Your task to perform on an android device: set default search engine in the chrome app Image 0: 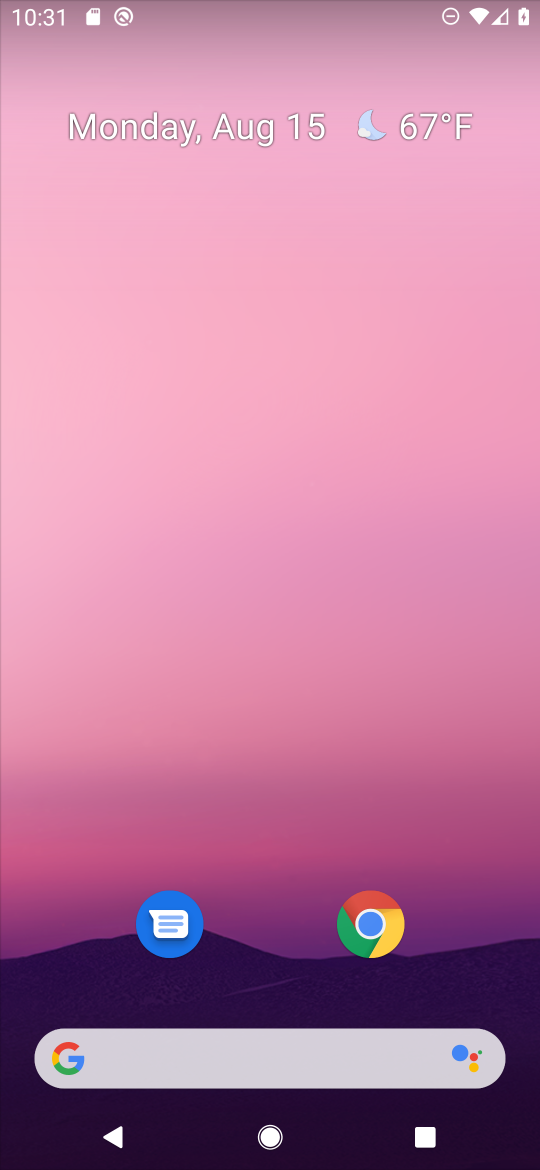
Step 0: click (377, 924)
Your task to perform on an android device: set default search engine in the chrome app Image 1: 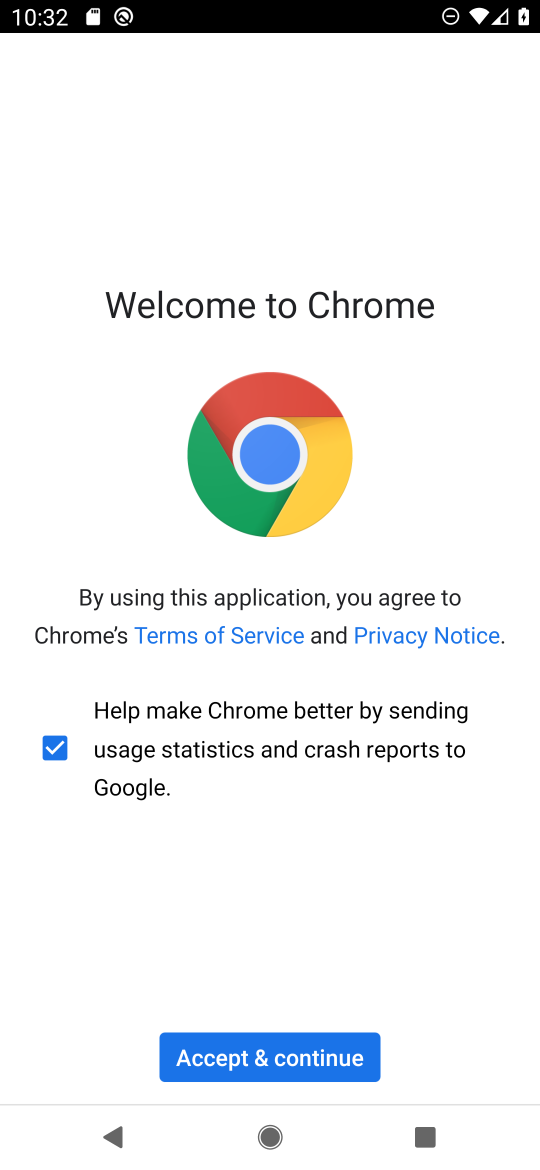
Step 1: click (271, 1048)
Your task to perform on an android device: set default search engine in the chrome app Image 2: 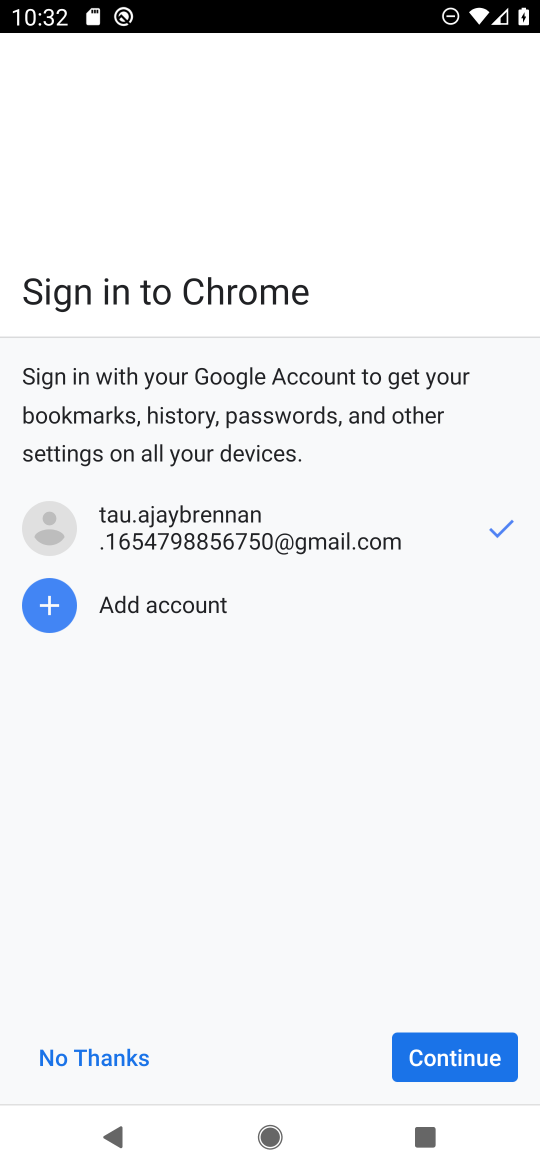
Step 2: click (464, 1049)
Your task to perform on an android device: set default search engine in the chrome app Image 3: 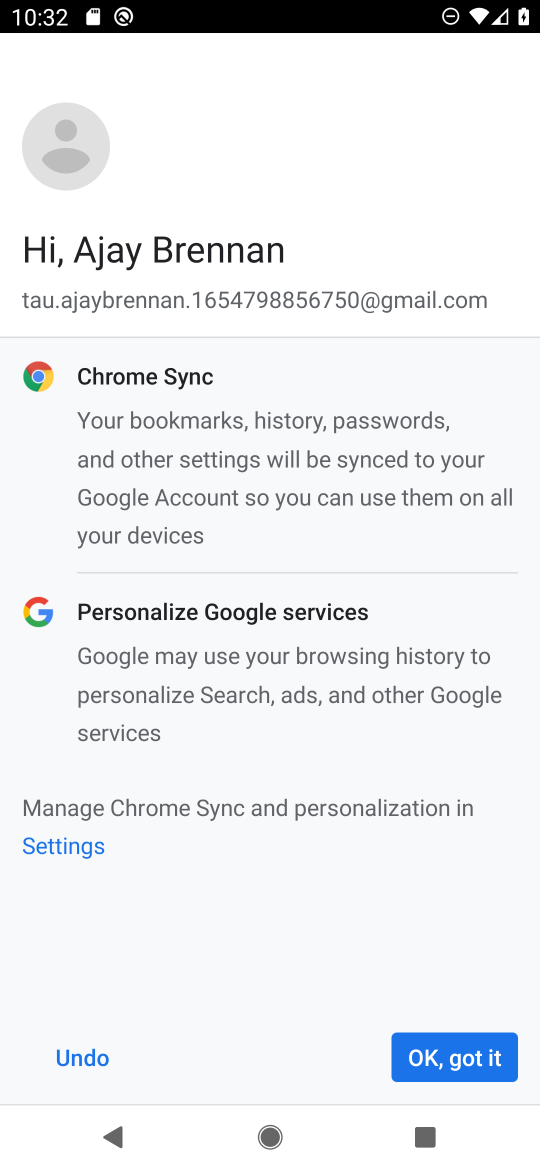
Step 3: click (464, 1049)
Your task to perform on an android device: set default search engine in the chrome app Image 4: 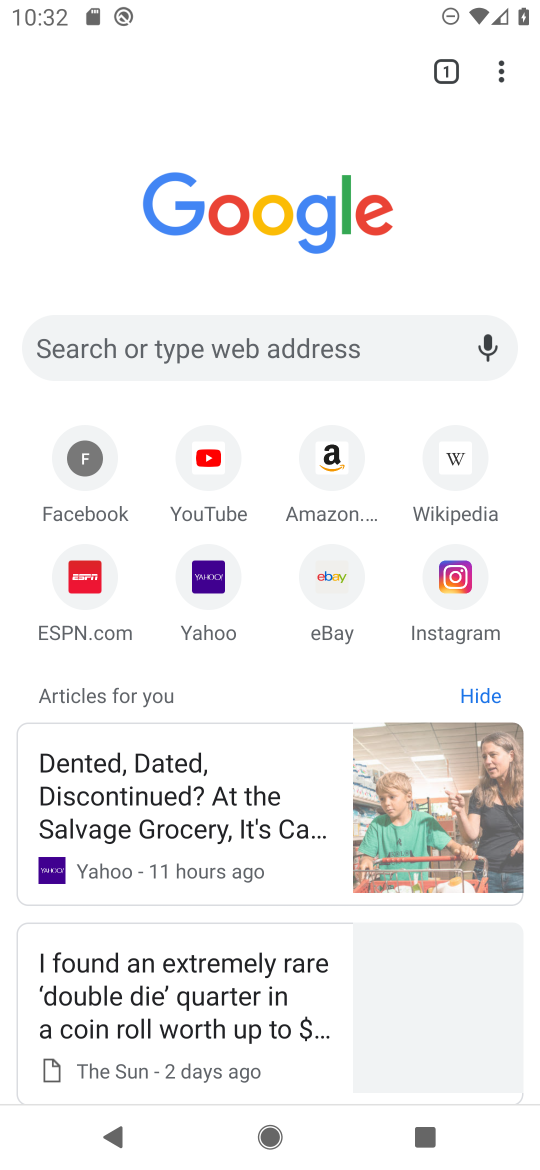
Step 4: click (493, 84)
Your task to perform on an android device: set default search engine in the chrome app Image 5: 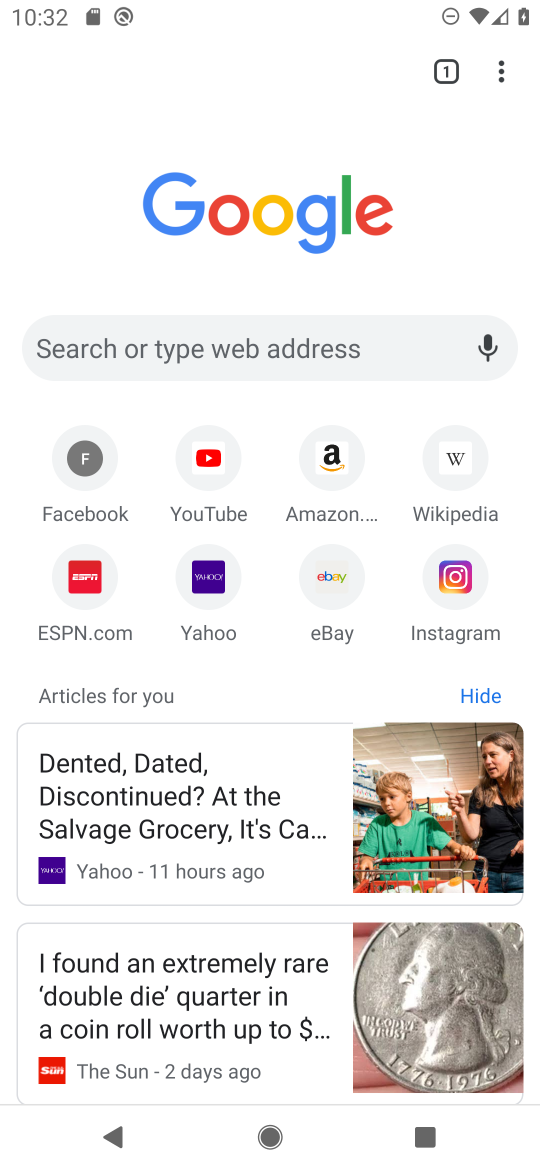
Step 5: click (496, 80)
Your task to perform on an android device: set default search engine in the chrome app Image 6: 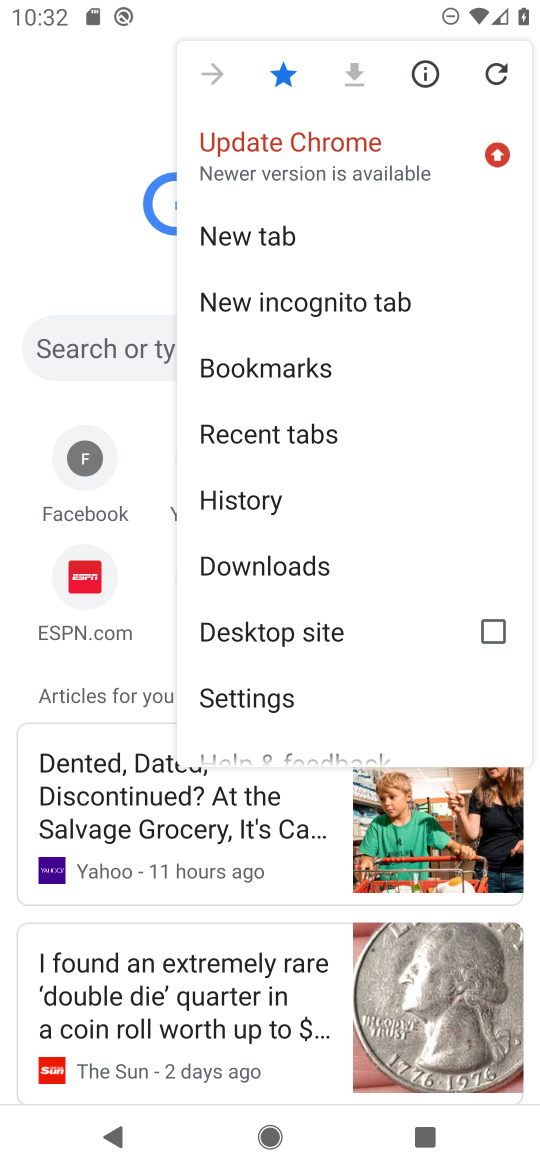
Step 6: click (263, 692)
Your task to perform on an android device: set default search engine in the chrome app Image 7: 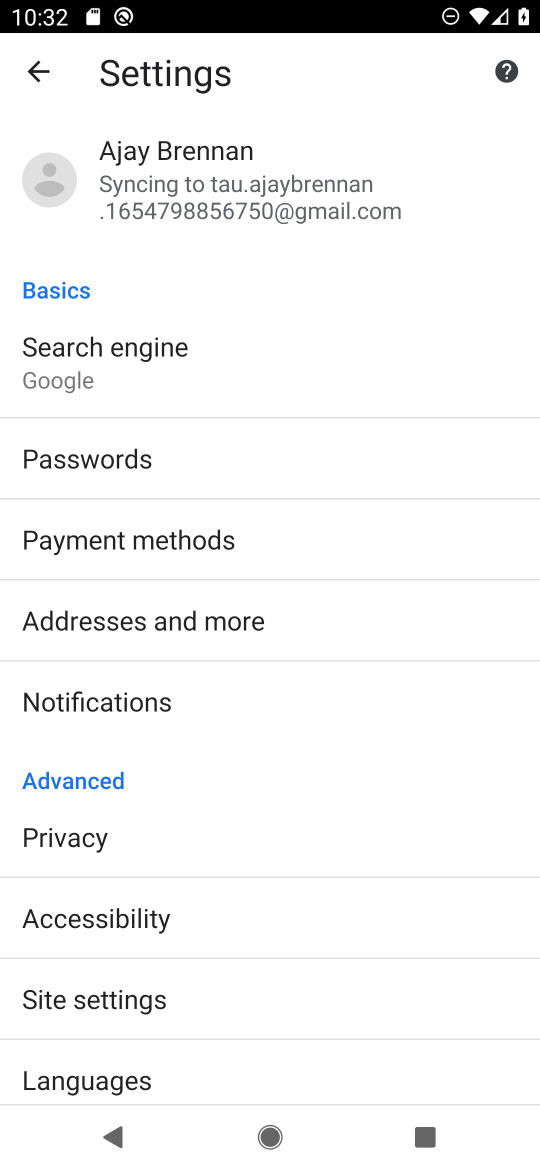
Step 7: click (84, 354)
Your task to perform on an android device: set default search engine in the chrome app Image 8: 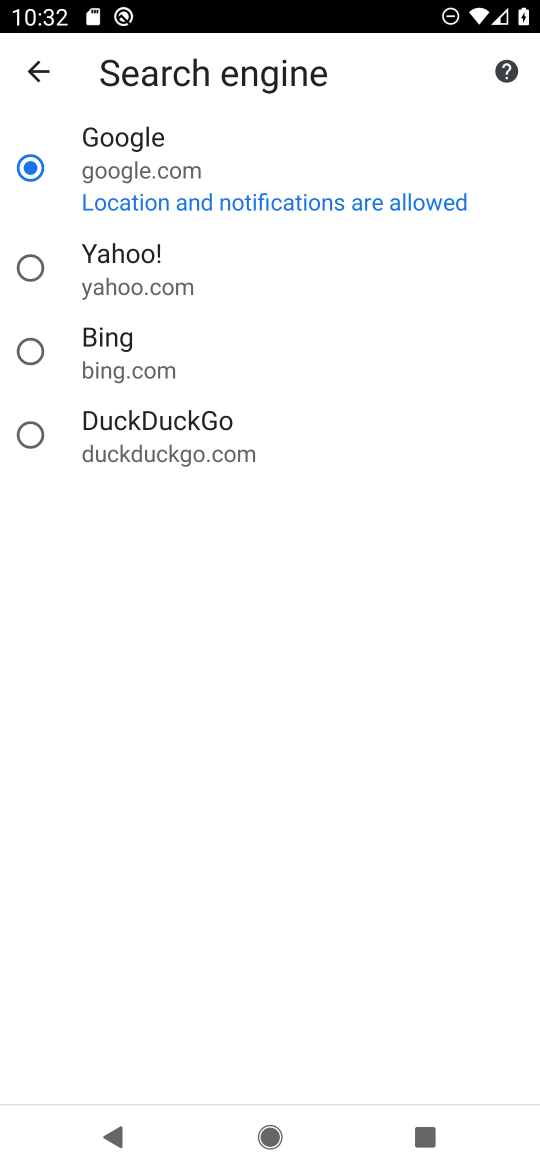
Step 8: click (33, 262)
Your task to perform on an android device: set default search engine in the chrome app Image 9: 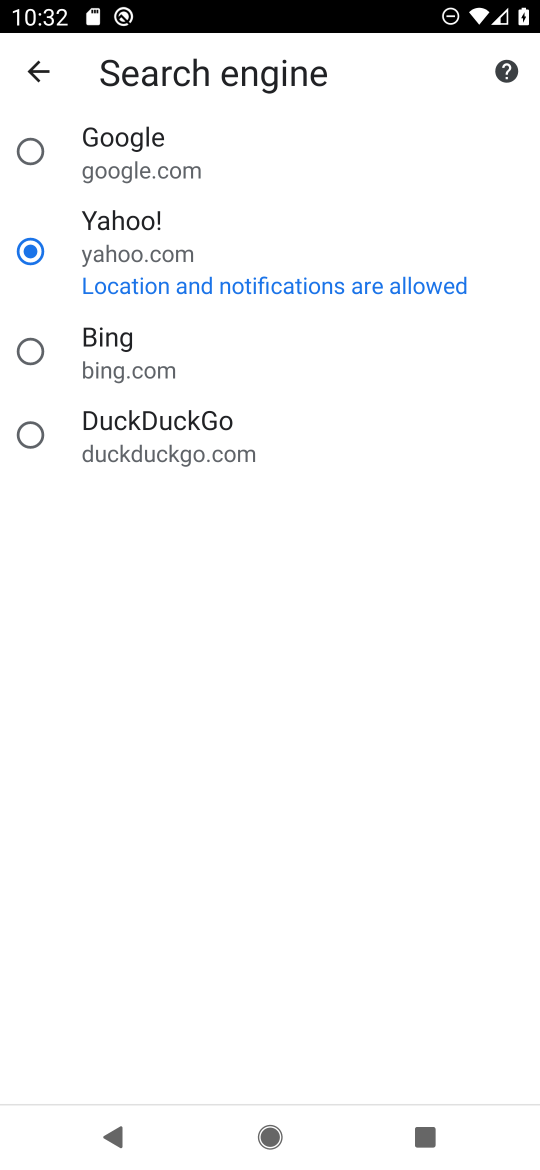
Step 9: task complete